Your task to perform on an android device: Is it going to rain tomorrow? Image 0: 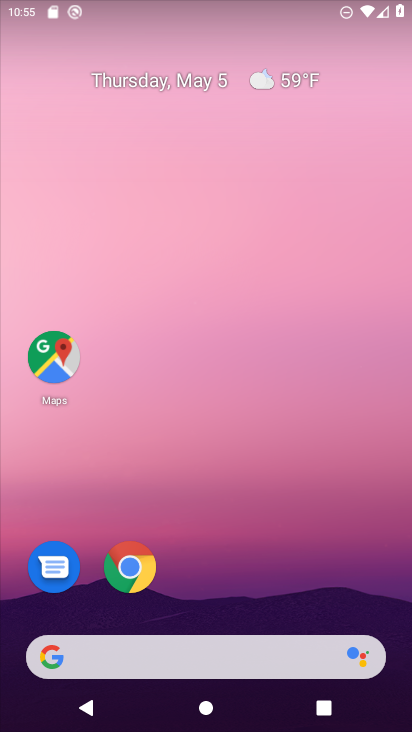
Step 0: click (135, 571)
Your task to perform on an android device: Is it going to rain tomorrow? Image 1: 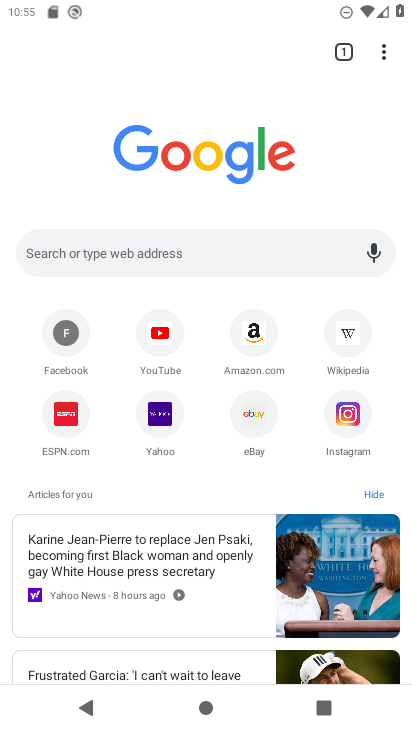
Step 1: click (150, 248)
Your task to perform on an android device: Is it going to rain tomorrow? Image 2: 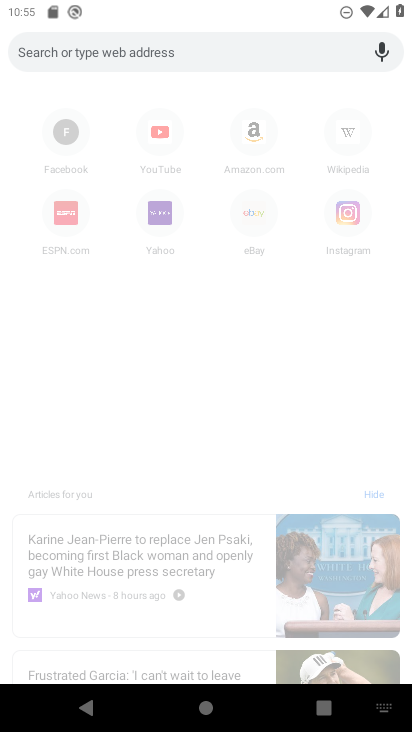
Step 2: type "is it going to rain tomorrow"
Your task to perform on an android device: Is it going to rain tomorrow? Image 3: 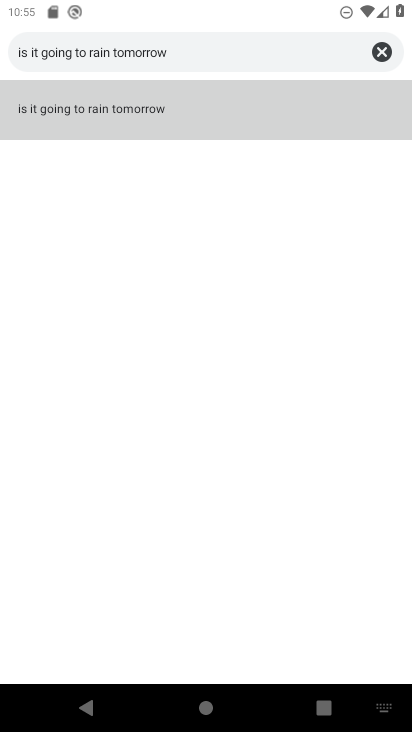
Step 3: click (36, 107)
Your task to perform on an android device: Is it going to rain tomorrow? Image 4: 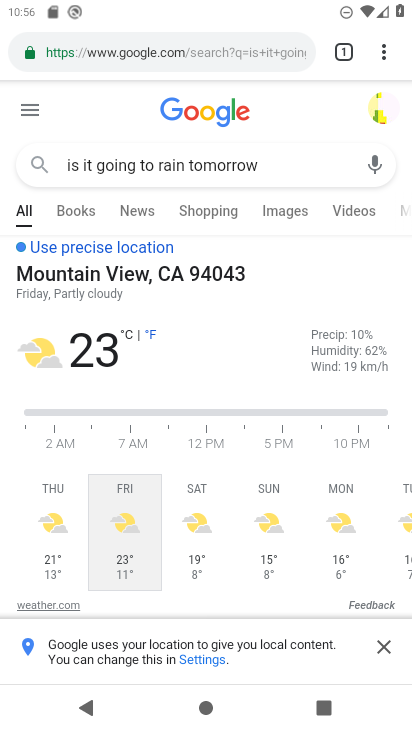
Step 4: task complete